Your task to perform on an android device: set default search engine in the chrome app Image 0: 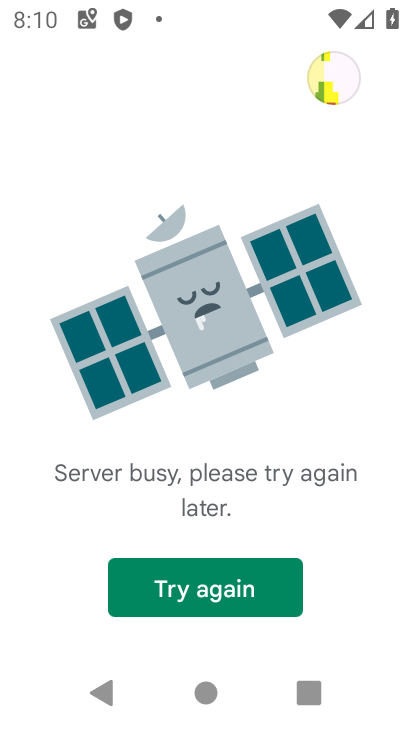
Step 0: press back button
Your task to perform on an android device: set default search engine in the chrome app Image 1: 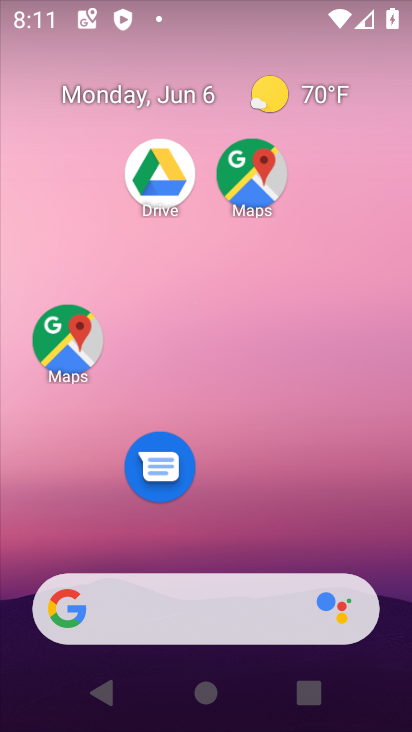
Step 1: drag from (266, 664) to (231, 36)
Your task to perform on an android device: set default search engine in the chrome app Image 2: 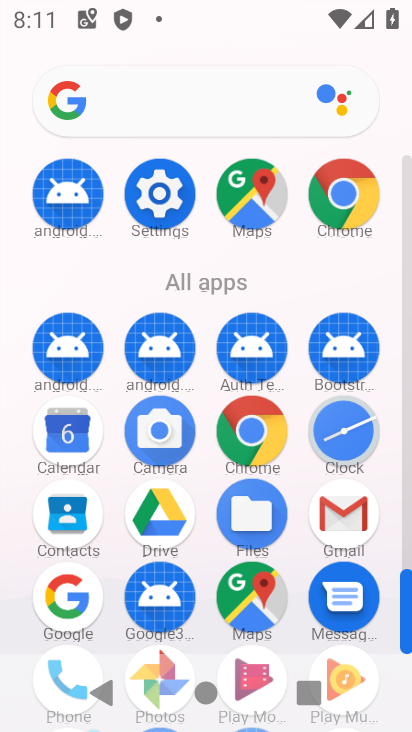
Step 2: click (343, 193)
Your task to perform on an android device: set default search engine in the chrome app Image 3: 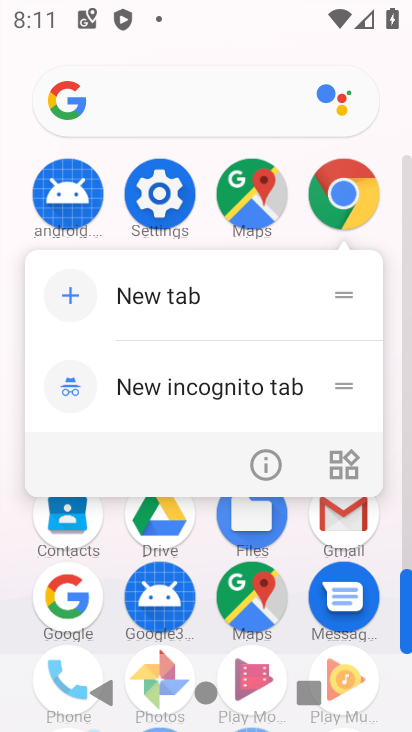
Step 3: click (343, 196)
Your task to perform on an android device: set default search engine in the chrome app Image 4: 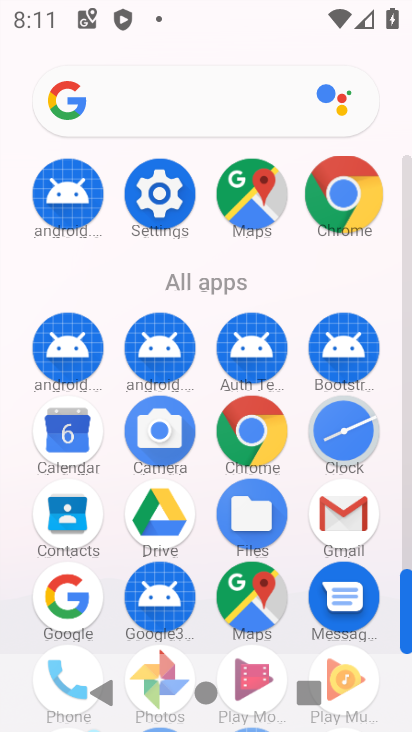
Step 4: click (343, 197)
Your task to perform on an android device: set default search engine in the chrome app Image 5: 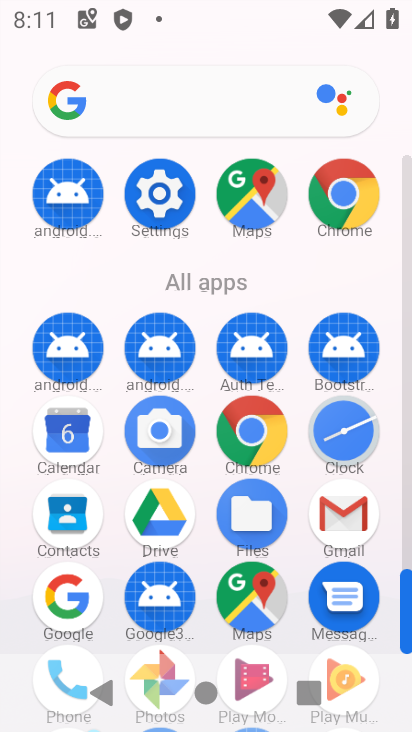
Step 5: click (343, 197)
Your task to perform on an android device: set default search engine in the chrome app Image 6: 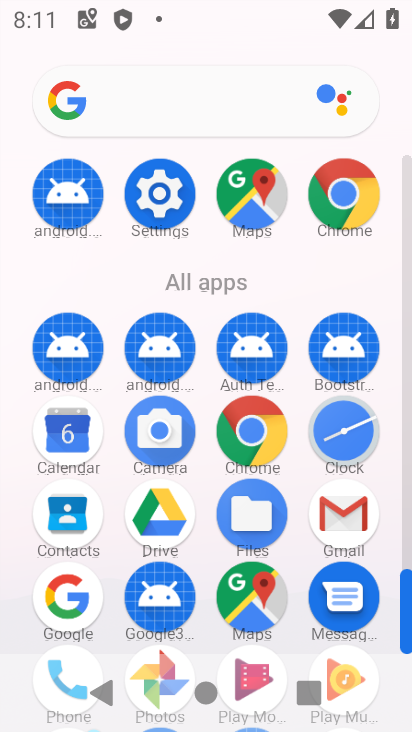
Step 6: click (343, 197)
Your task to perform on an android device: set default search engine in the chrome app Image 7: 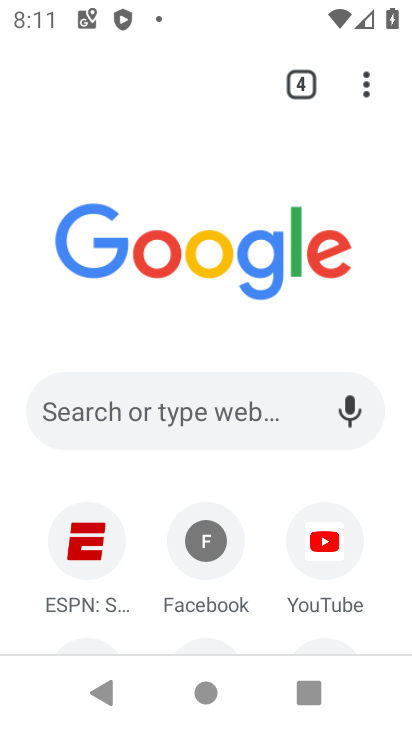
Step 7: drag from (367, 86) to (92, 522)
Your task to perform on an android device: set default search engine in the chrome app Image 8: 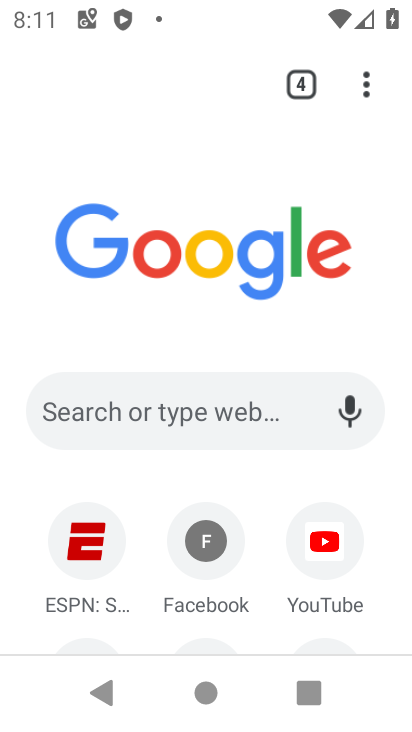
Step 8: click (93, 522)
Your task to perform on an android device: set default search engine in the chrome app Image 9: 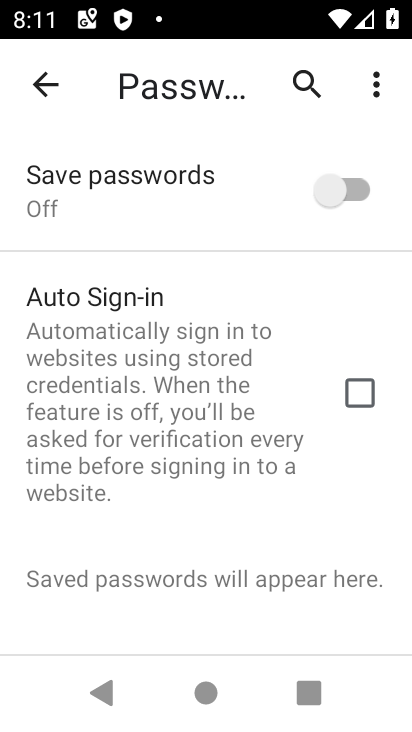
Step 9: click (39, 81)
Your task to perform on an android device: set default search engine in the chrome app Image 10: 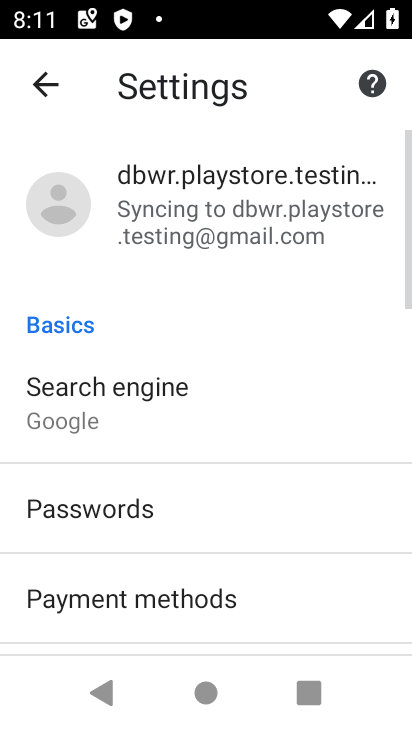
Step 10: click (98, 414)
Your task to perform on an android device: set default search engine in the chrome app Image 11: 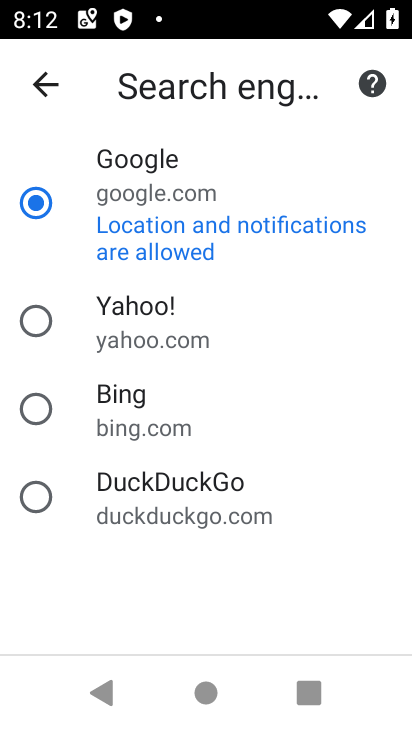
Step 11: click (31, 315)
Your task to perform on an android device: set default search engine in the chrome app Image 12: 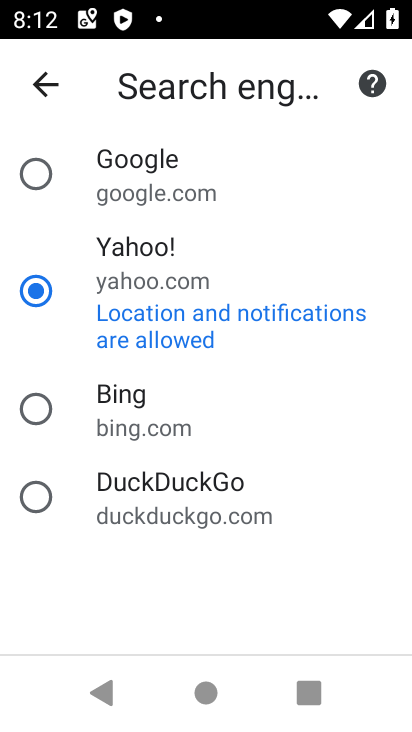
Step 12: click (36, 177)
Your task to perform on an android device: set default search engine in the chrome app Image 13: 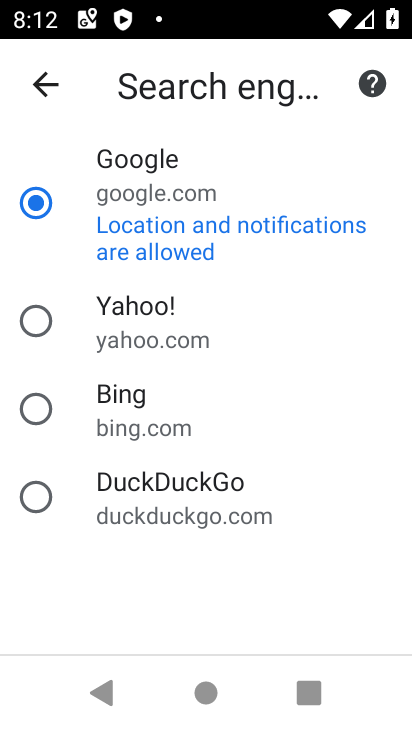
Step 13: task complete